Your task to perform on an android device: Open the map Image 0: 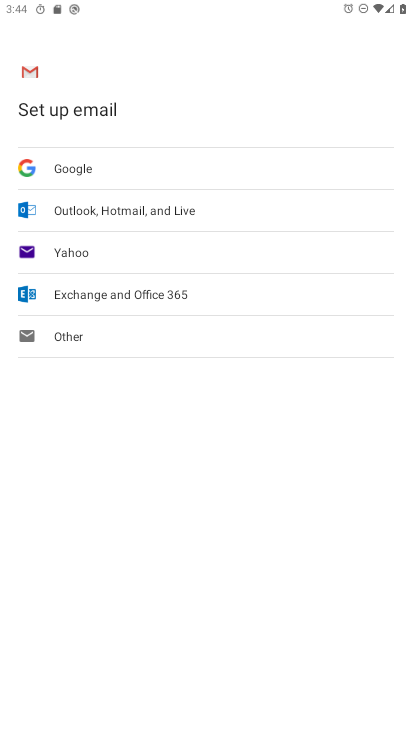
Step 0: press home button
Your task to perform on an android device: Open the map Image 1: 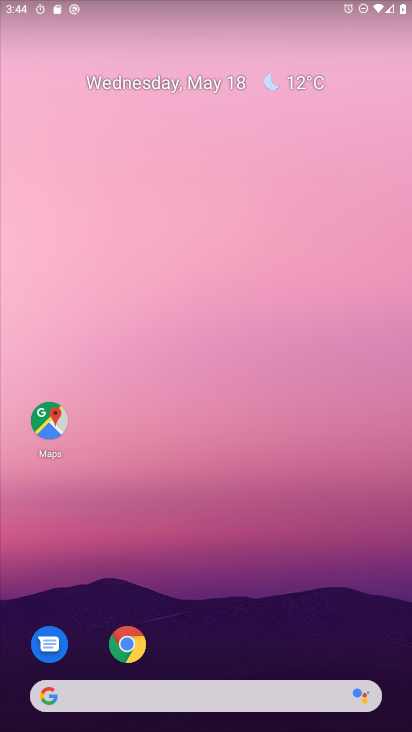
Step 1: click (38, 419)
Your task to perform on an android device: Open the map Image 2: 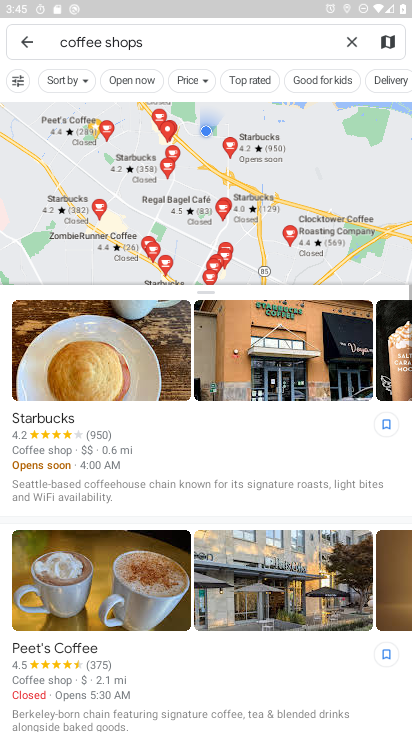
Step 2: task complete